Your task to perform on an android device: Open maps Image 0: 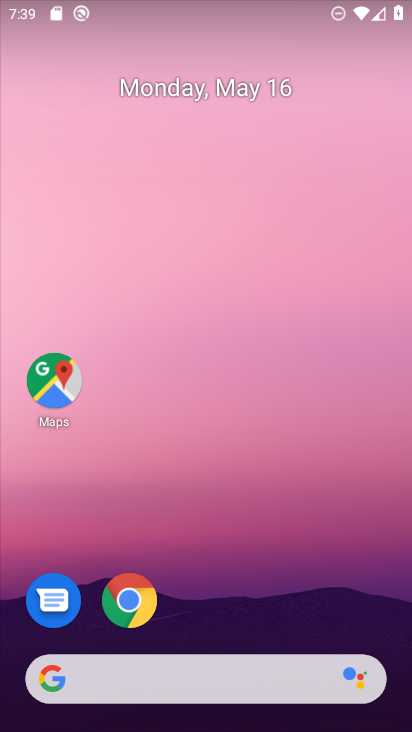
Step 0: click (65, 384)
Your task to perform on an android device: Open maps Image 1: 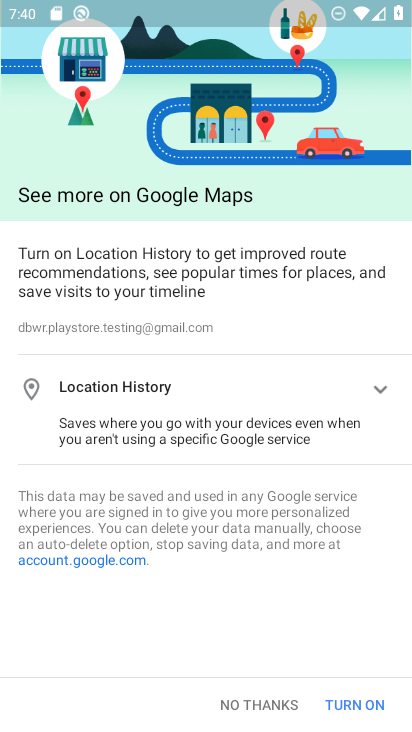
Step 1: click (257, 704)
Your task to perform on an android device: Open maps Image 2: 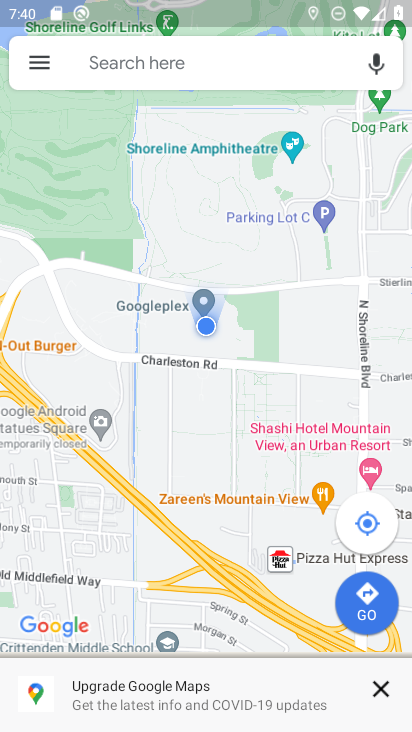
Step 2: task complete